Your task to perform on an android device: turn on wifi Image 0: 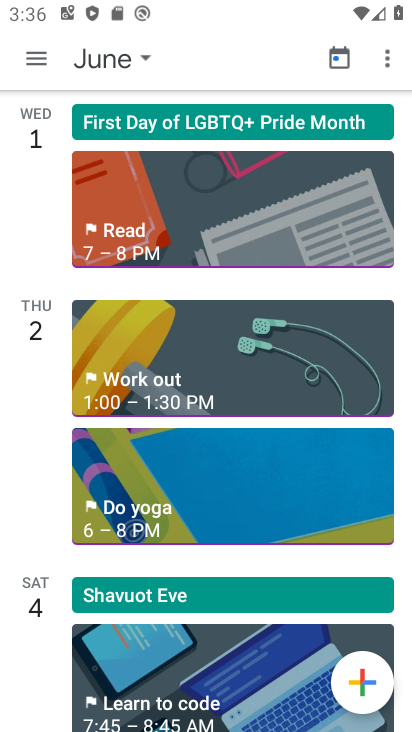
Step 0: press home button
Your task to perform on an android device: turn on wifi Image 1: 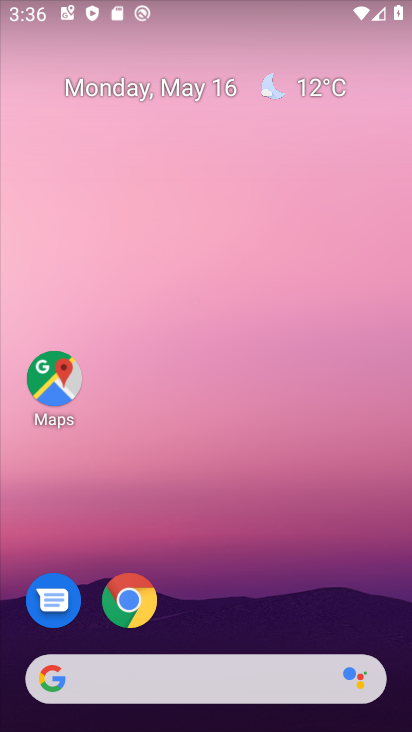
Step 1: drag from (202, 535) to (155, 154)
Your task to perform on an android device: turn on wifi Image 2: 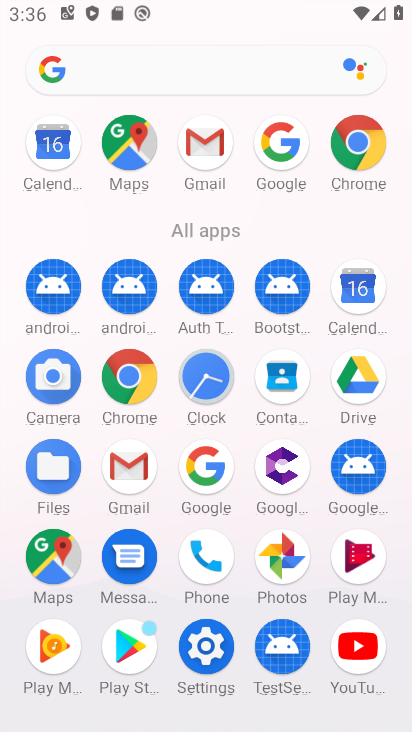
Step 2: click (214, 657)
Your task to perform on an android device: turn on wifi Image 3: 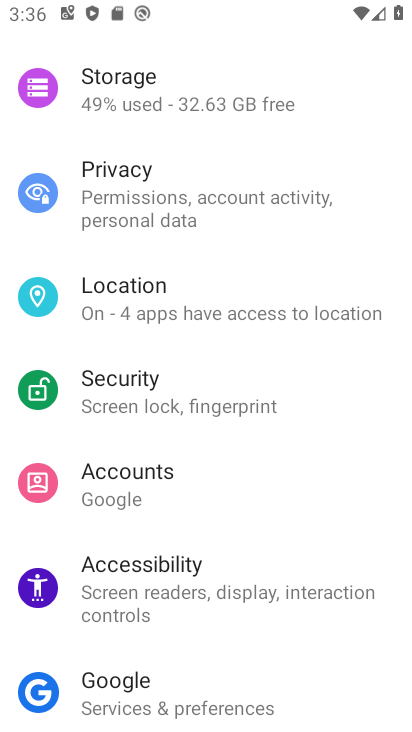
Step 3: drag from (190, 125) to (194, 612)
Your task to perform on an android device: turn on wifi Image 4: 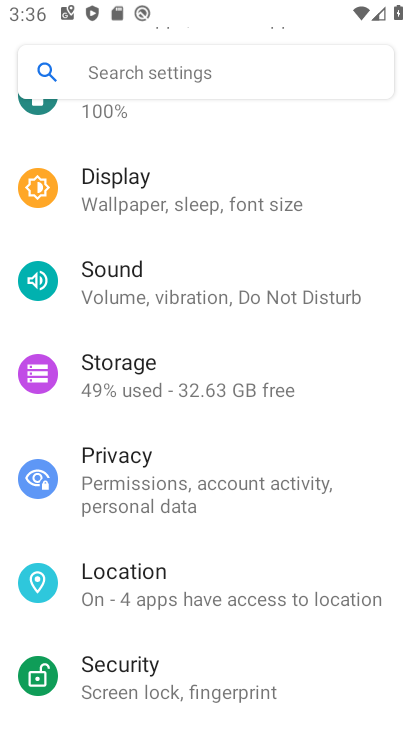
Step 4: drag from (190, 134) to (193, 712)
Your task to perform on an android device: turn on wifi Image 5: 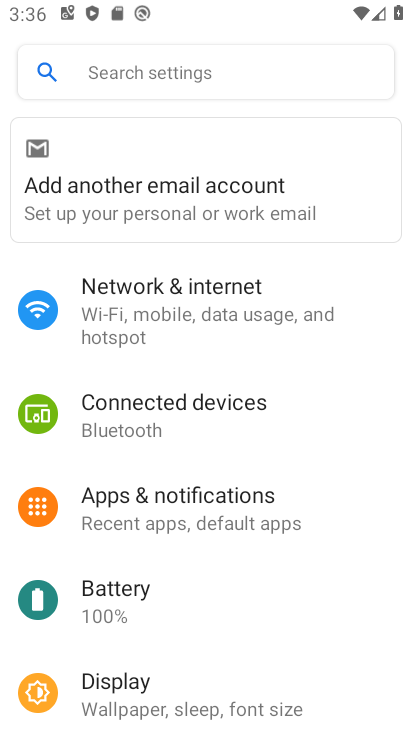
Step 5: click (179, 308)
Your task to perform on an android device: turn on wifi Image 6: 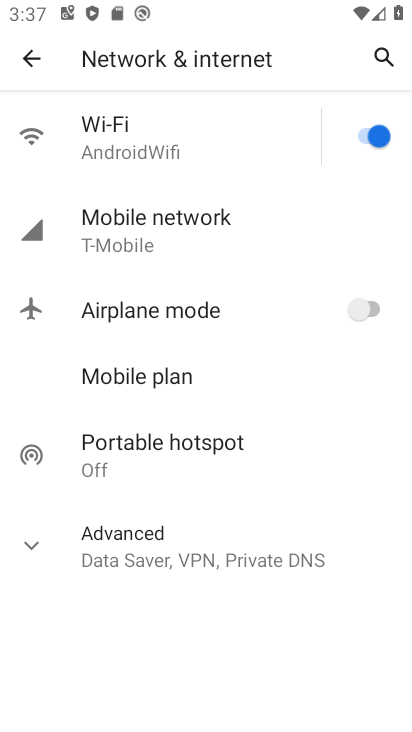
Step 6: task complete